Your task to perform on an android device: Show me productivity apps on the Play Store Image 0: 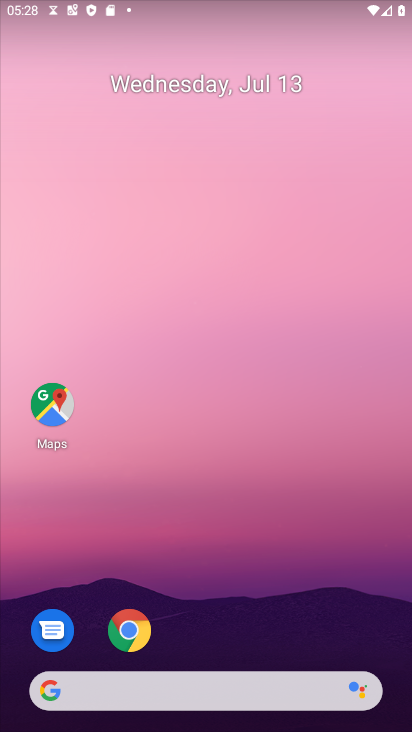
Step 0: drag from (224, 705) to (275, 89)
Your task to perform on an android device: Show me productivity apps on the Play Store Image 1: 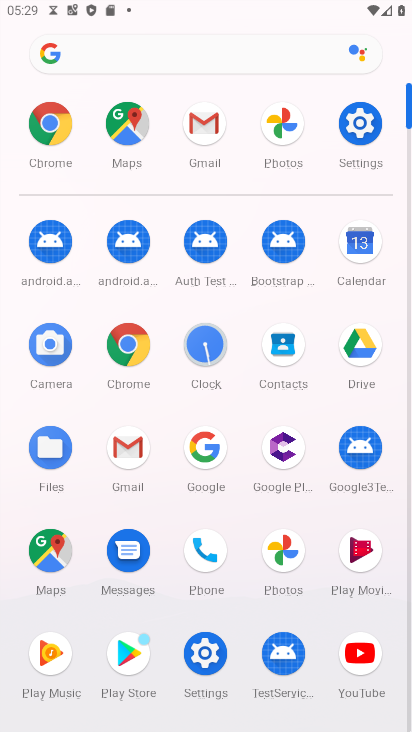
Step 1: click (136, 645)
Your task to perform on an android device: Show me productivity apps on the Play Store Image 2: 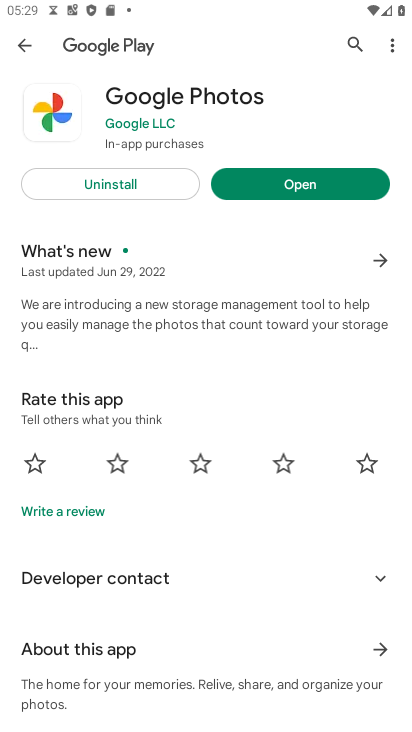
Step 2: press back button
Your task to perform on an android device: Show me productivity apps on the Play Store Image 3: 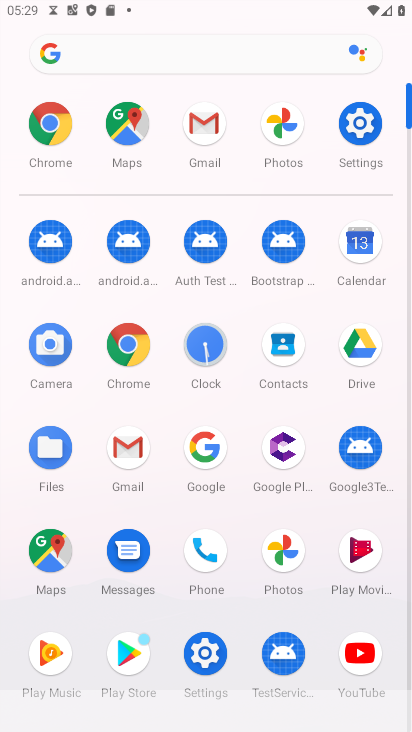
Step 3: click (291, 542)
Your task to perform on an android device: Show me productivity apps on the Play Store Image 4: 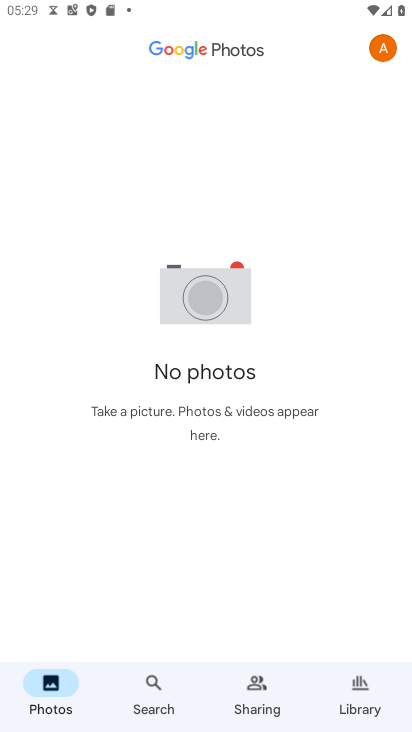
Step 4: press home button
Your task to perform on an android device: Show me productivity apps on the Play Store Image 5: 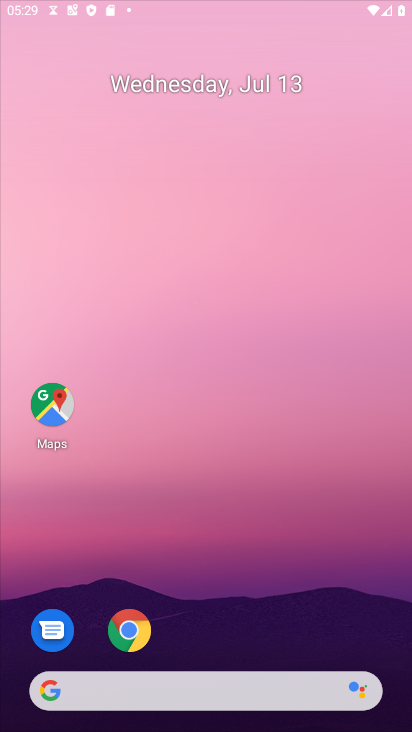
Step 5: drag from (295, 577) to (319, 100)
Your task to perform on an android device: Show me productivity apps on the Play Store Image 6: 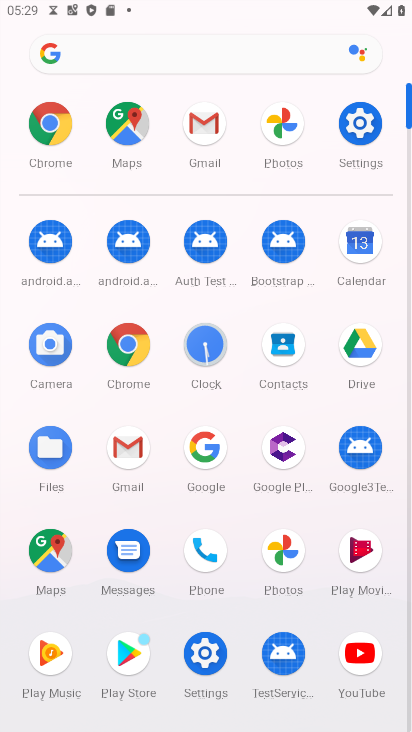
Step 6: click (132, 643)
Your task to perform on an android device: Show me productivity apps on the Play Store Image 7: 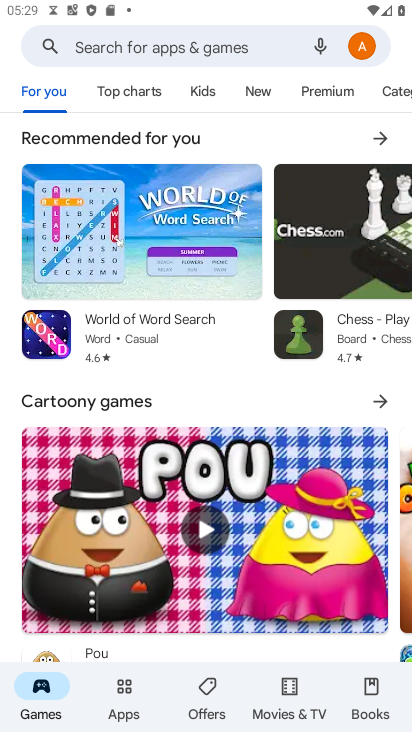
Step 7: click (111, 684)
Your task to perform on an android device: Show me productivity apps on the Play Store Image 8: 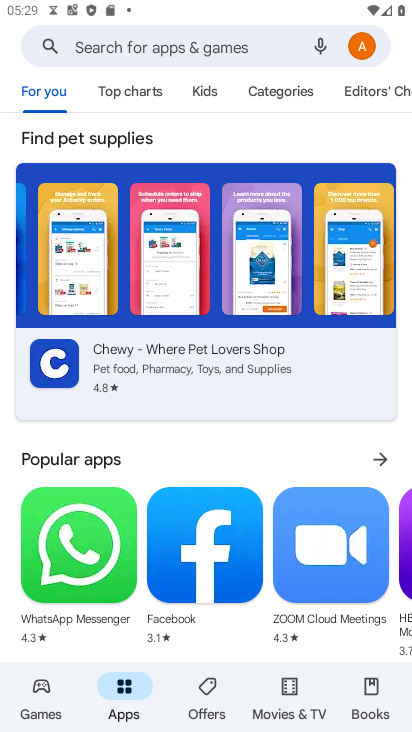
Step 8: task complete